Your task to perform on an android device: Go to settings Image 0: 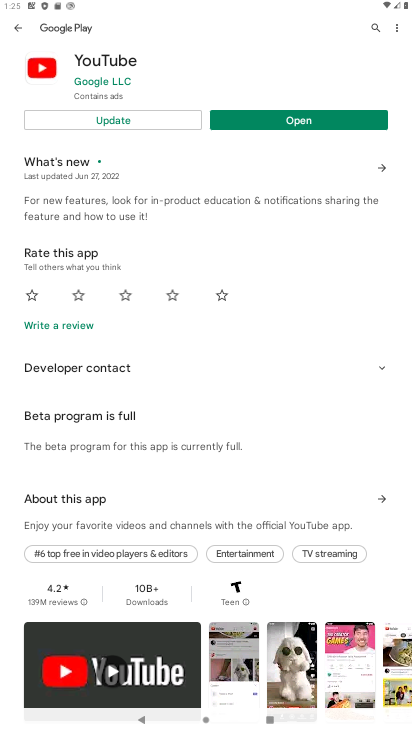
Step 0: press home button
Your task to perform on an android device: Go to settings Image 1: 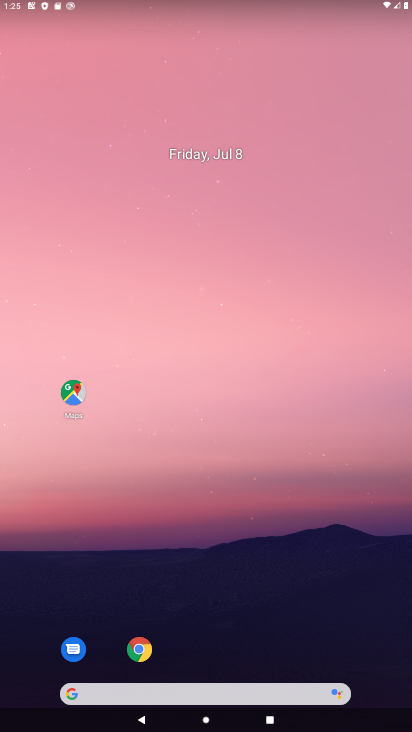
Step 1: drag from (84, 582) to (296, 4)
Your task to perform on an android device: Go to settings Image 2: 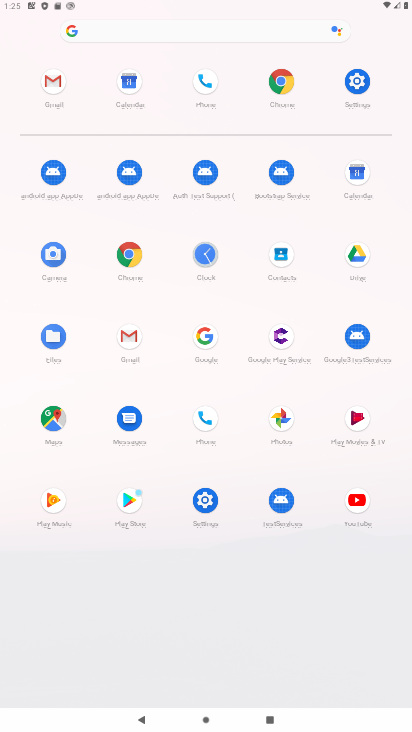
Step 2: click (358, 83)
Your task to perform on an android device: Go to settings Image 3: 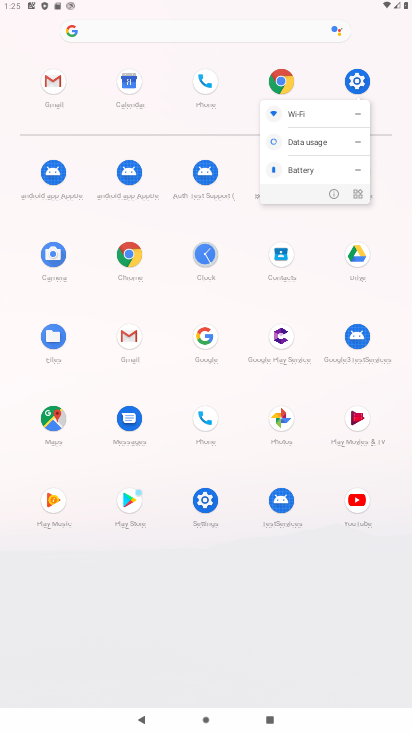
Step 3: click (200, 497)
Your task to perform on an android device: Go to settings Image 4: 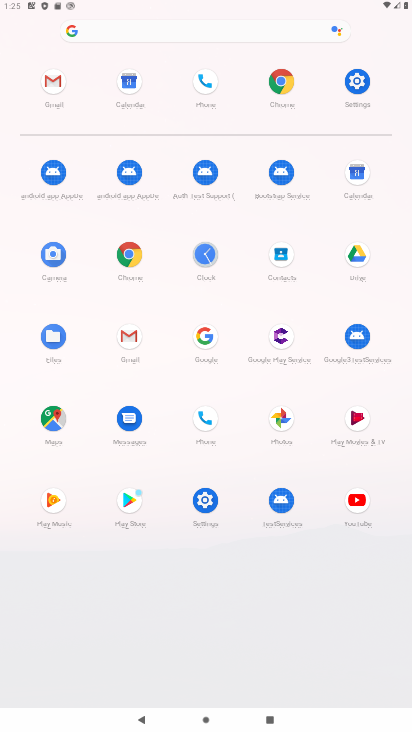
Step 4: click (200, 502)
Your task to perform on an android device: Go to settings Image 5: 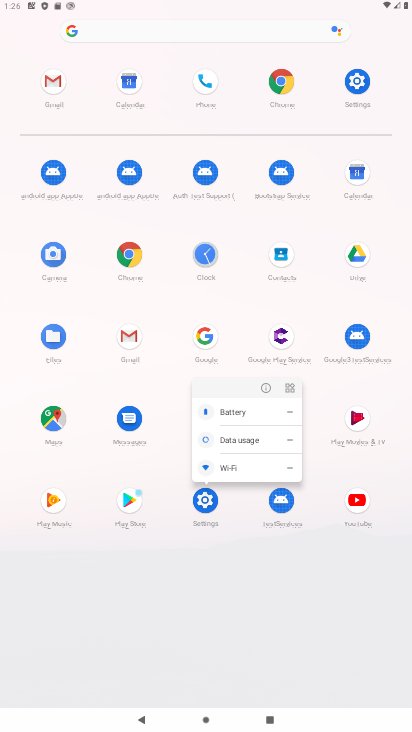
Step 5: task complete